Your task to perform on an android device: turn off javascript in the chrome app Image 0: 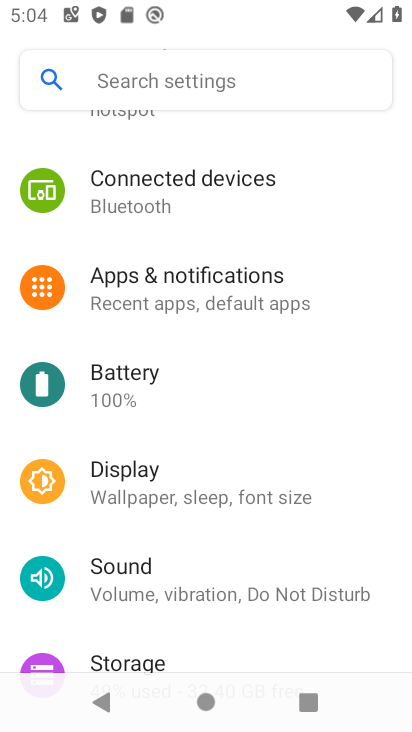
Step 0: press home button
Your task to perform on an android device: turn off javascript in the chrome app Image 1: 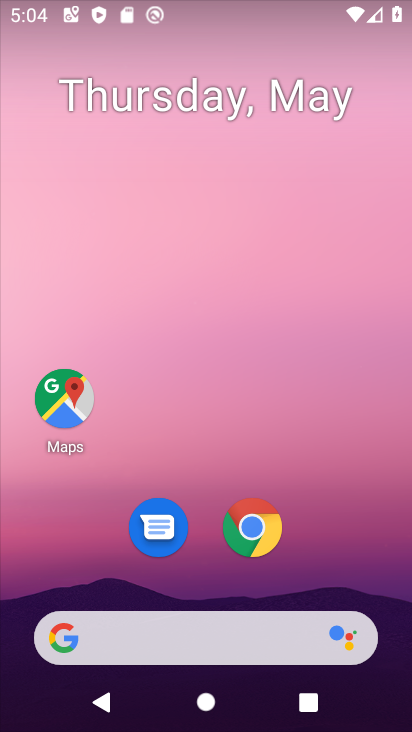
Step 1: drag from (354, 532) to (344, 50)
Your task to perform on an android device: turn off javascript in the chrome app Image 2: 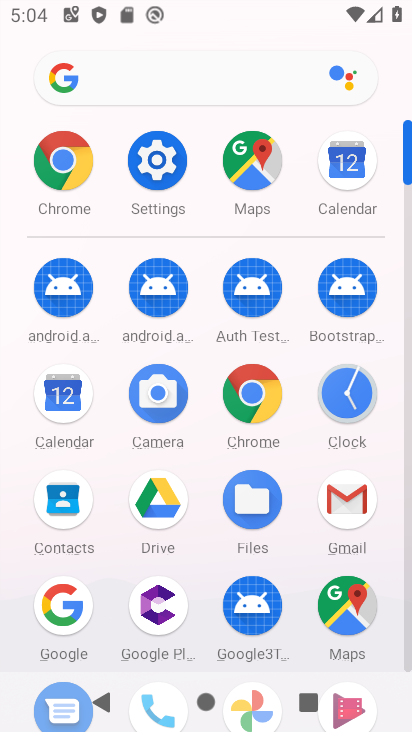
Step 2: click (59, 171)
Your task to perform on an android device: turn off javascript in the chrome app Image 3: 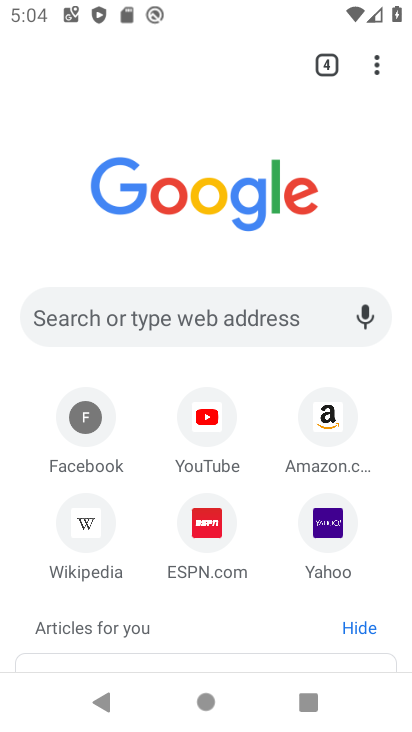
Step 3: drag from (372, 79) to (178, 548)
Your task to perform on an android device: turn off javascript in the chrome app Image 4: 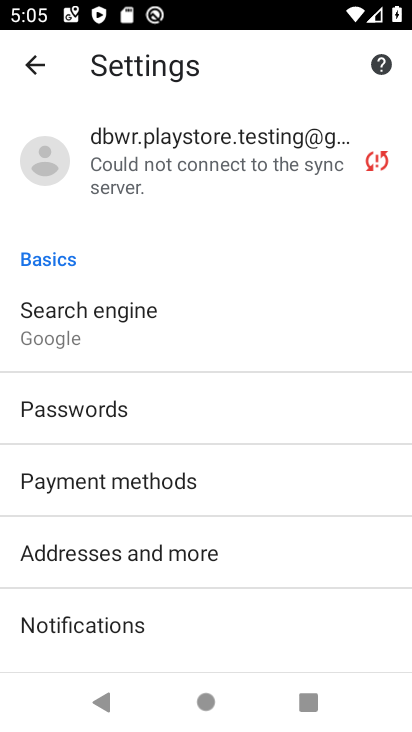
Step 4: drag from (150, 594) to (196, 290)
Your task to perform on an android device: turn off javascript in the chrome app Image 5: 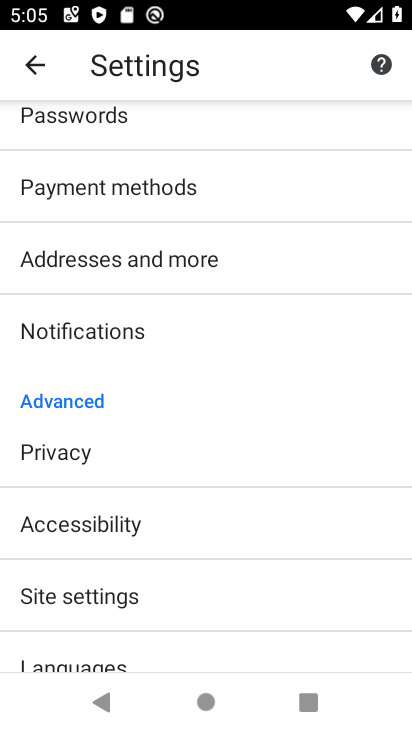
Step 5: drag from (151, 594) to (187, 240)
Your task to perform on an android device: turn off javascript in the chrome app Image 6: 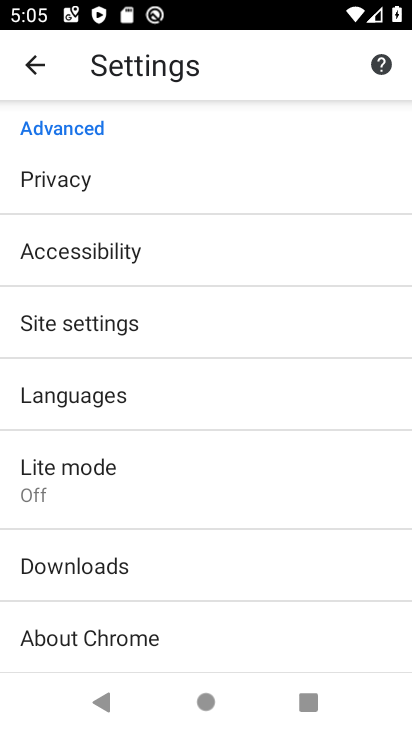
Step 6: drag from (167, 545) to (237, 247)
Your task to perform on an android device: turn off javascript in the chrome app Image 7: 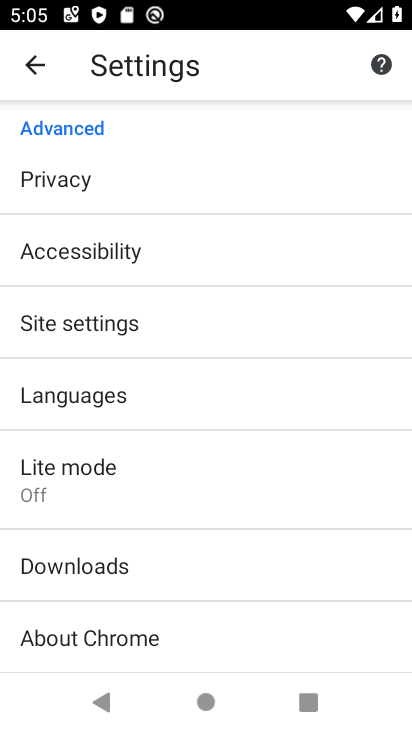
Step 7: drag from (207, 484) to (252, 242)
Your task to perform on an android device: turn off javascript in the chrome app Image 8: 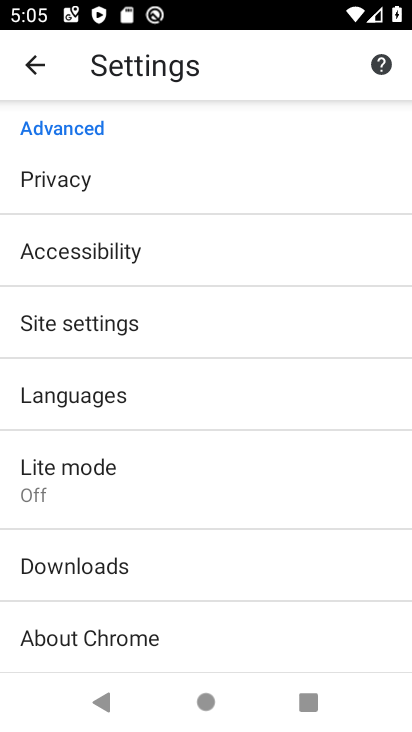
Step 8: drag from (223, 218) to (126, 589)
Your task to perform on an android device: turn off javascript in the chrome app Image 9: 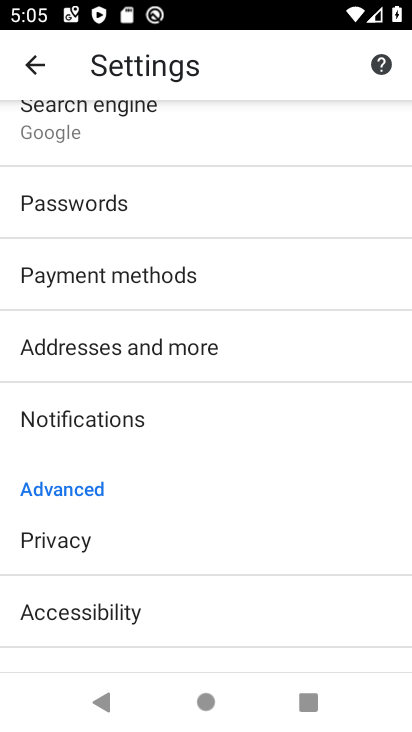
Step 9: drag from (136, 584) to (217, 124)
Your task to perform on an android device: turn off javascript in the chrome app Image 10: 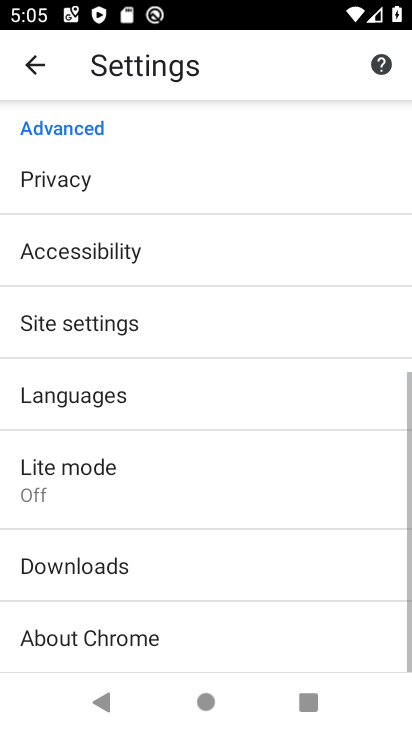
Step 10: click (133, 333)
Your task to perform on an android device: turn off javascript in the chrome app Image 11: 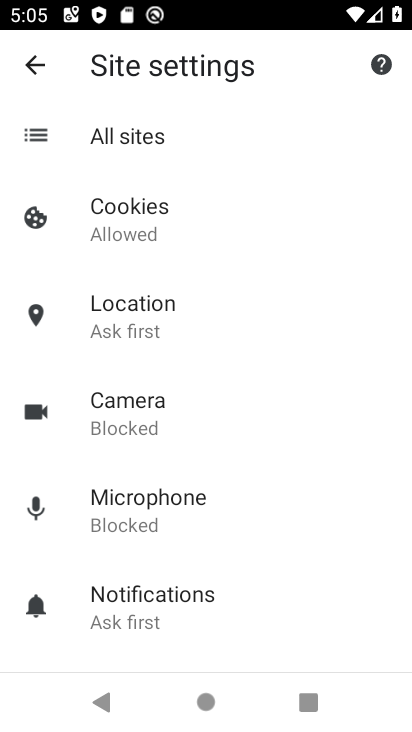
Step 11: drag from (173, 538) to (237, 171)
Your task to perform on an android device: turn off javascript in the chrome app Image 12: 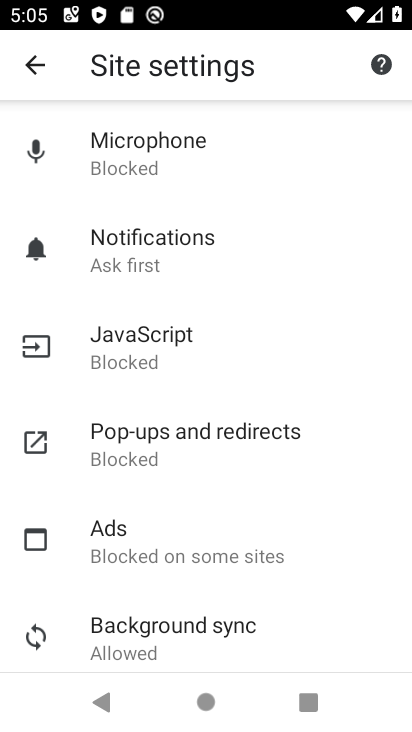
Step 12: click (205, 349)
Your task to perform on an android device: turn off javascript in the chrome app Image 13: 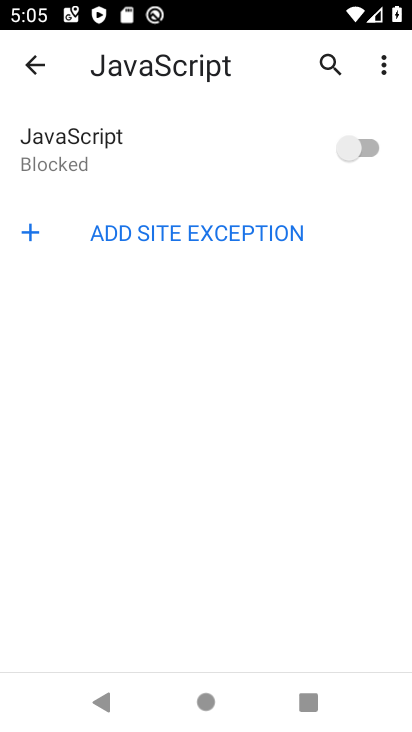
Step 13: task complete